Your task to perform on an android device: Go to display settings Image 0: 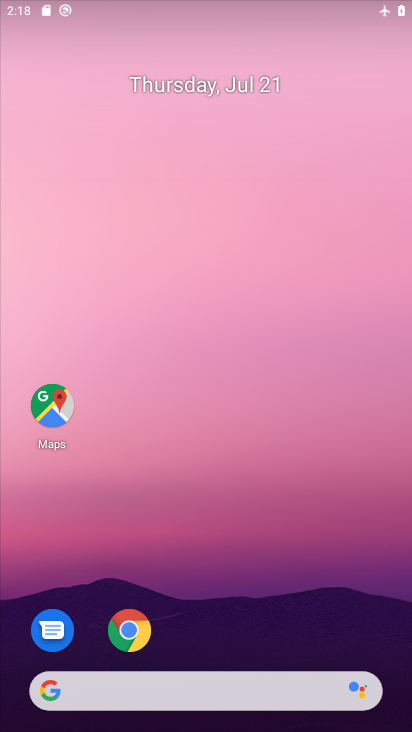
Step 0: drag from (222, 386) to (182, 156)
Your task to perform on an android device: Go to display settings Image 1: 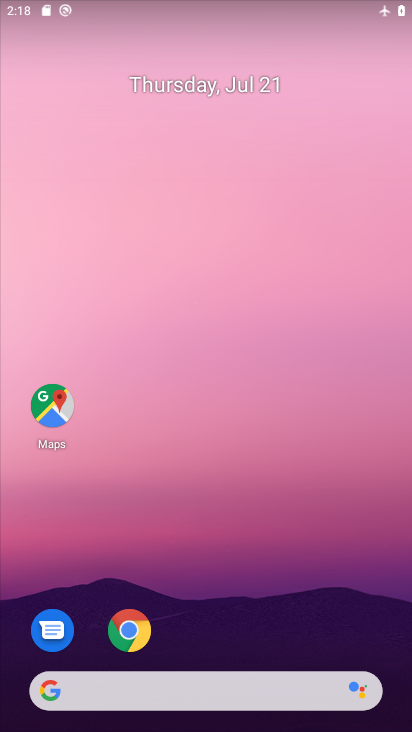
Step 1: drag from (199, 608) to (110, 48)
Your task to perform on an android device: Go to display settings Image 2: 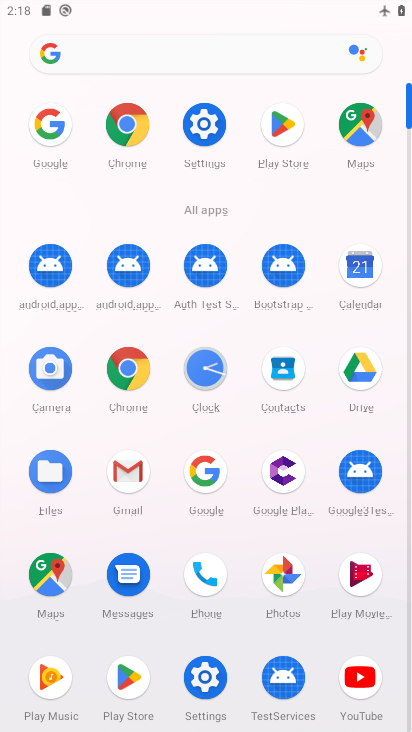
Step 2: click (207, 126)
Your task to perform on an android device: Go to display settings Image 3: 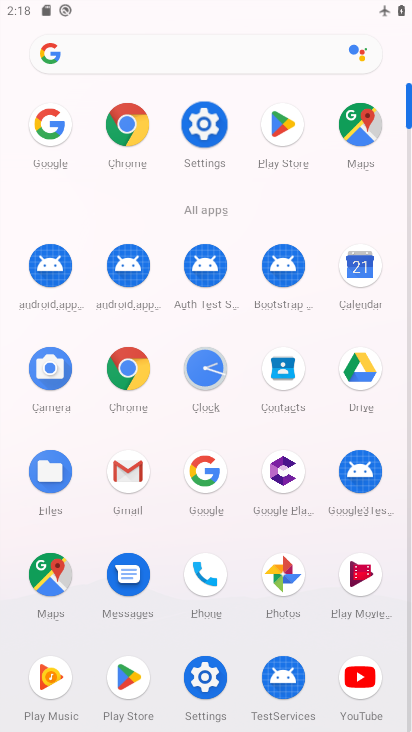
Step 3: click (208, 126)
Your task to perform on an android device: Go to display settings Image 4: 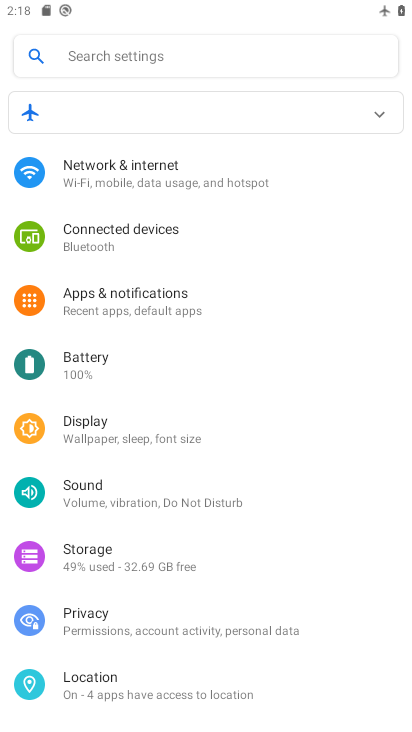
Step 4: click (128, 166)
Your task to perform on an android device: Go to display settings Image 5: 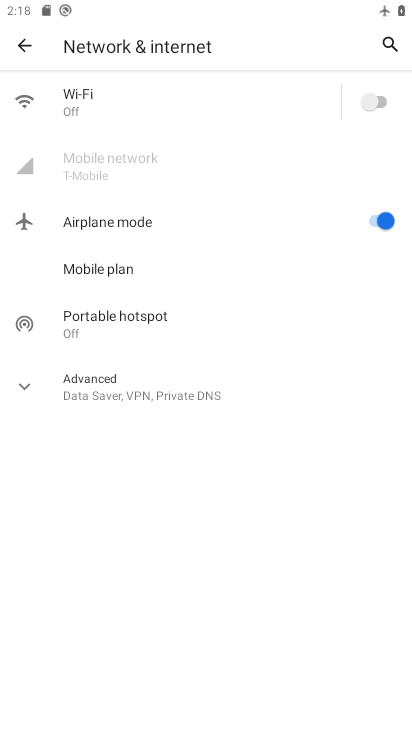
Step 5: click (369, 96)
Your task to perform on an android device: Go to display settings Image 6: 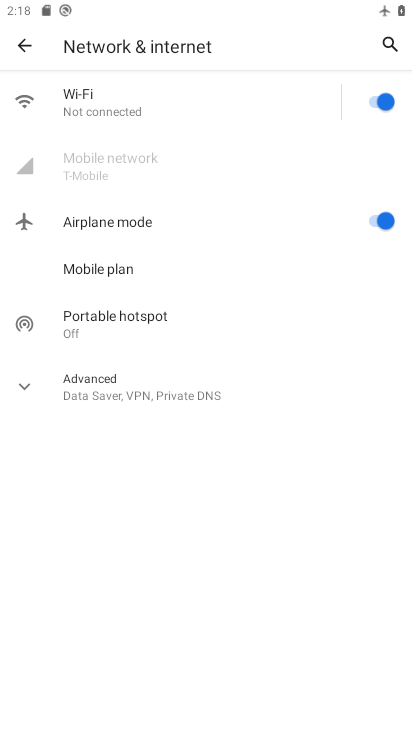
Step 6: click (375, 213)
Your task to perform on an android device: Go to display settings Image 7: 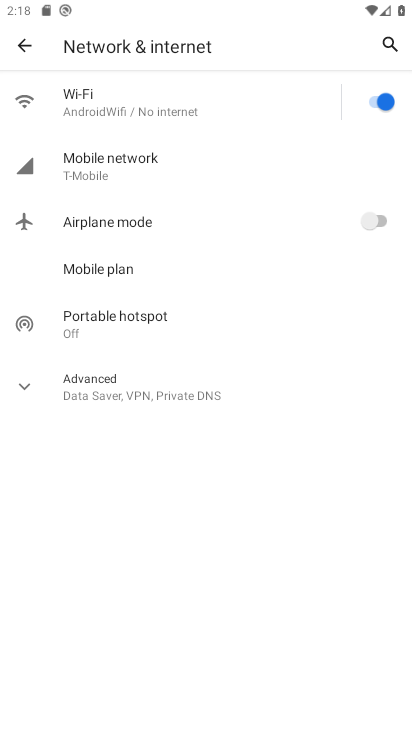
Step 7: click (13, 38)
Your task to perform on an android device: Go to display settings Image 8: 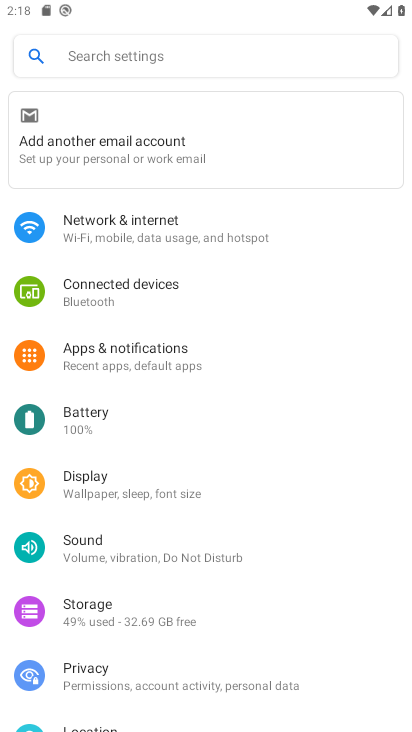
Step 8: click (89, 486)
Your task to perform on an android device: Go to display settings Image 9: 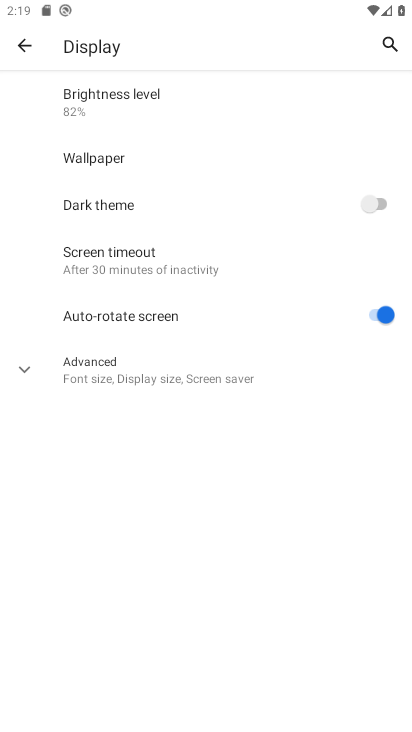
Step 9: task complete